Your task to perform on an android device: Play the last video I watched on Youtube Image 0: 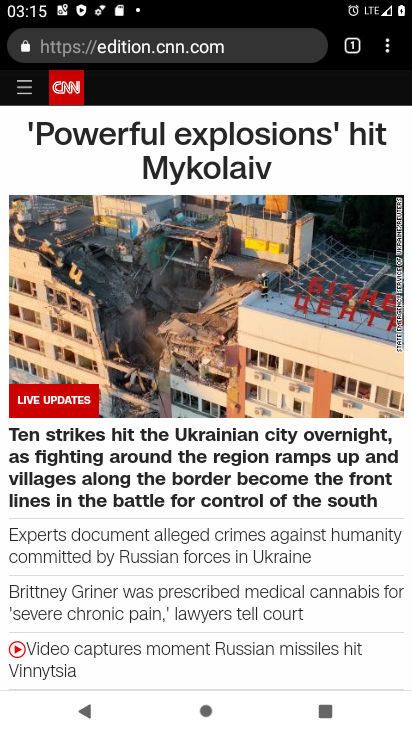
Step 0: press home button
Your task to perform on an android device: Play the last video I watched on Youtube Image 1: 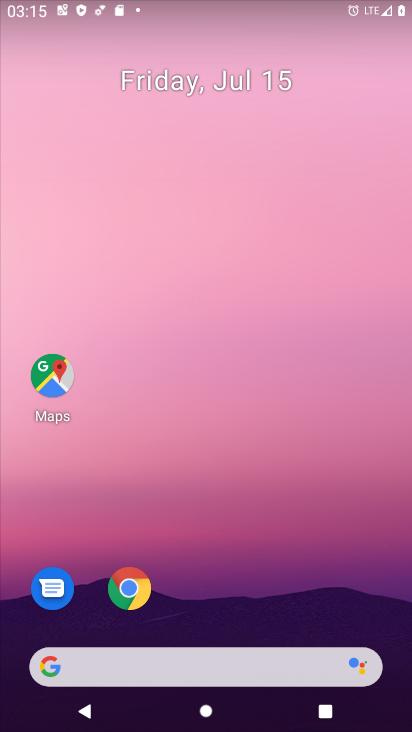
Step 1: drag from (216, 677) to (122, 223)
Your task to perform on an android device: Play the last video I watched on Youtube Image 2: 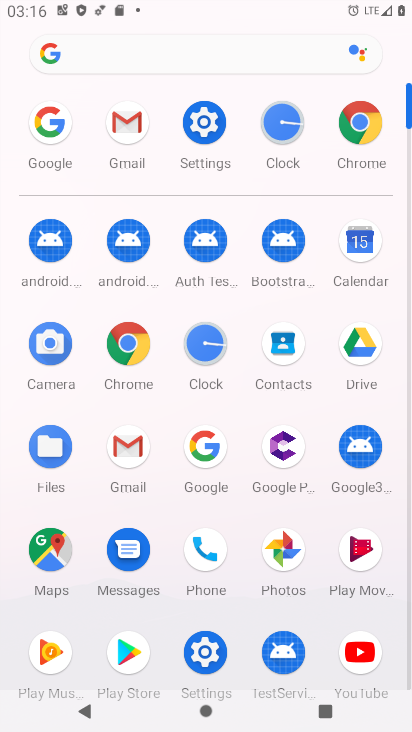
Step 2: click (359, 651)
Your task to perform on an android device: Play the last video I watched on Youtube Image 3: 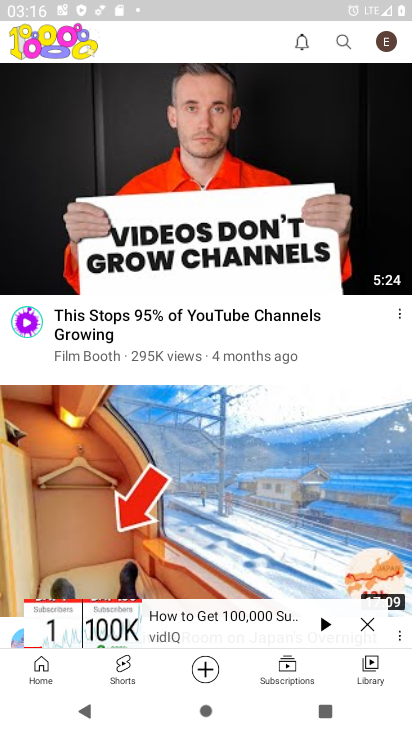
Step 3: click (370, 663)
Your task to perform on an android device: Play the last video I watched on Youtube Image 4: 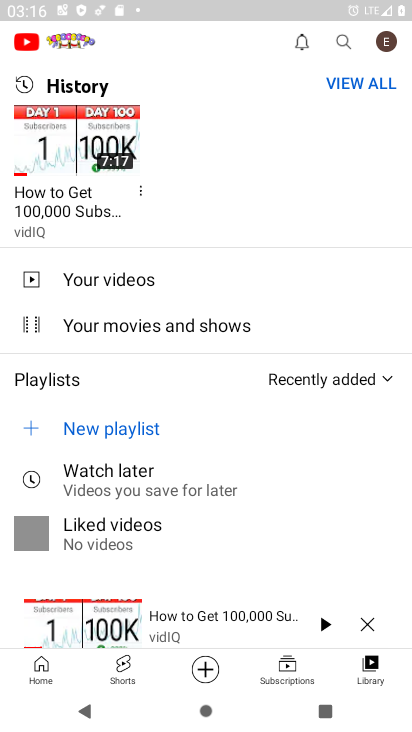
Step 4: click (80, 147)
Your task to perform on an android device: Play the last video I watched on Youtube Image 5: 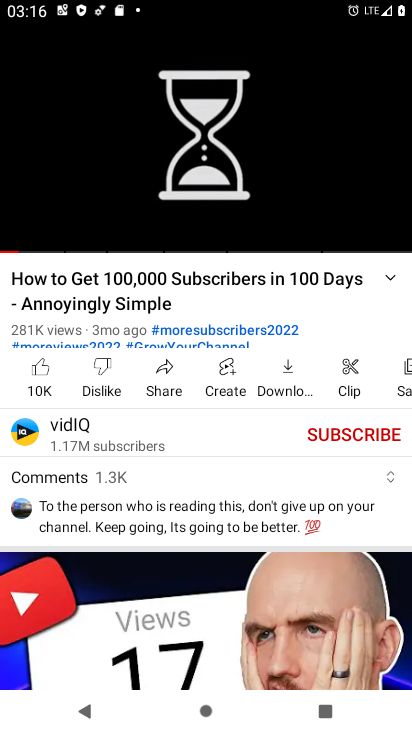
Step 5: task complete